Your task to perform on an android device: Toggle the flashlight Image 0: 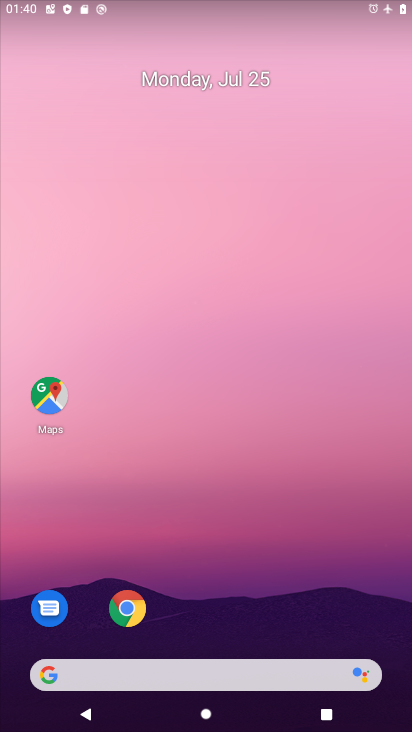
Step 0: drag from (205, 659) to (188, 69)
Your task to perform on an android device: Toggle the flashlight Image 1: 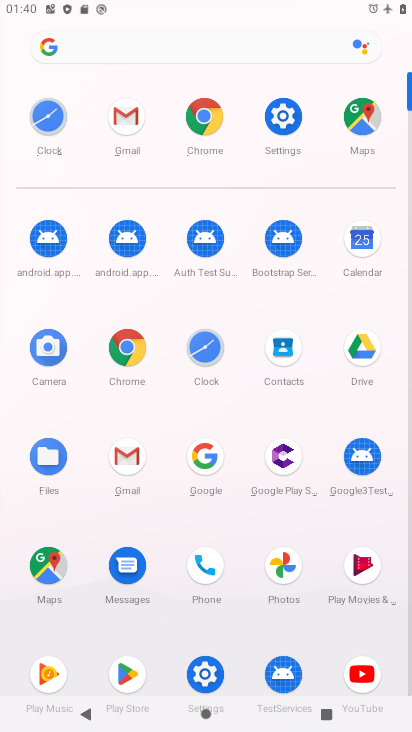
Step 1: click (275, 134)
Your task to perform on an android device: Toggle the flashlight Image 2: 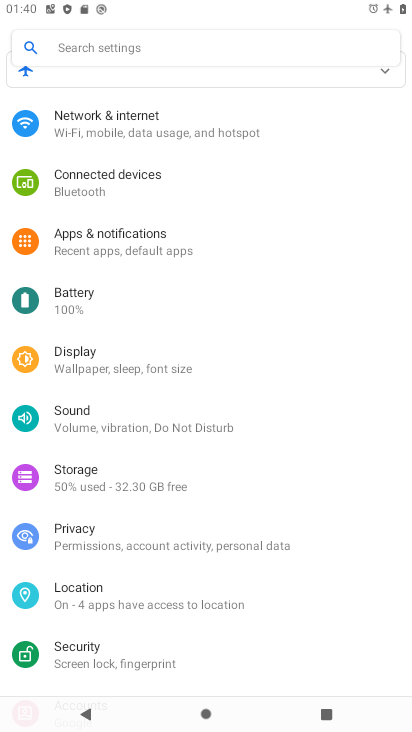
Step 2: task complete